Your task to perform on an android device: What is the news today? Image 0: 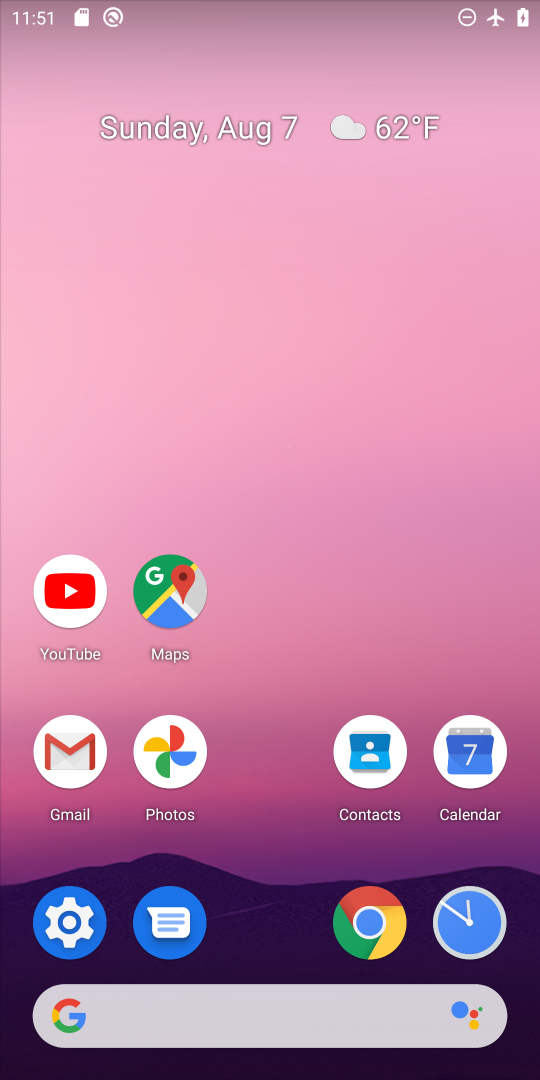
Step 0: click (260, 1004)
Your task to perform on an android device: What is the news today? Image 1: 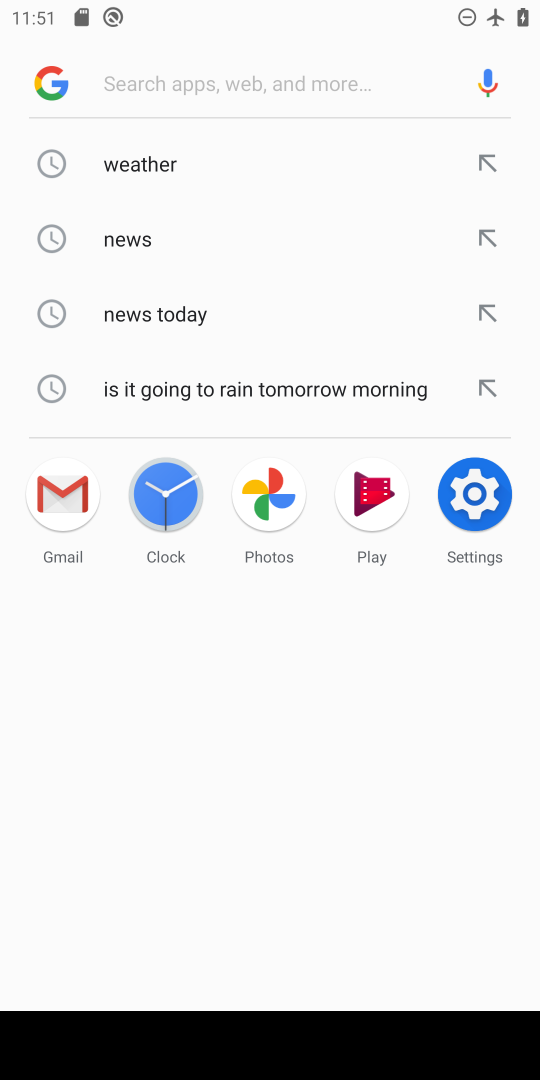
Step 1: click (122, 237)
Your task to perform on an android device: What is the news today? Image 2: 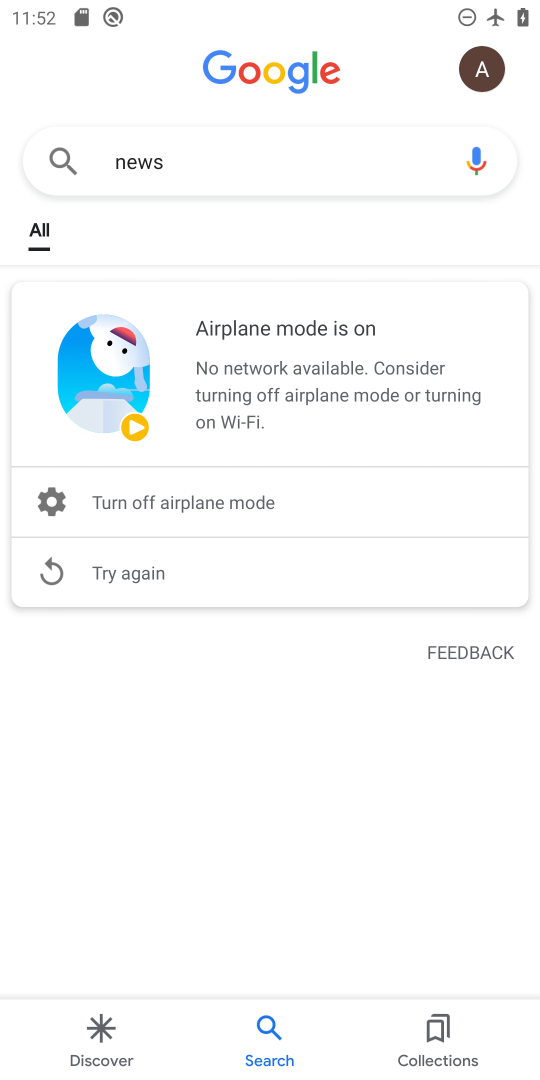
Step 2: task complete